Your task to perform on an android device: Go to Google maps Image 0: 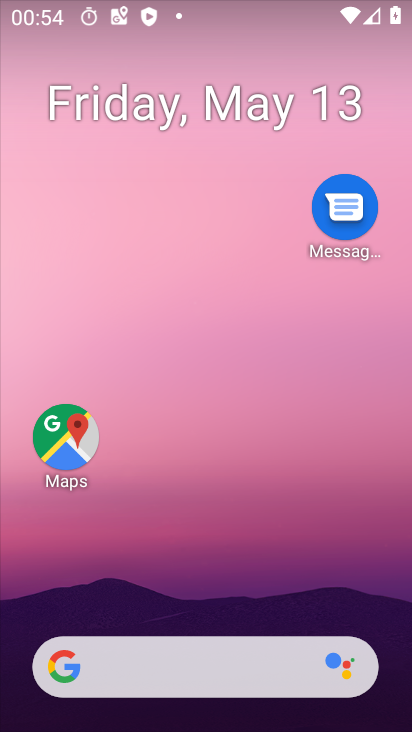
Step 0: press home button
Your task to perform on an android device: Go to Google maps Image 1: 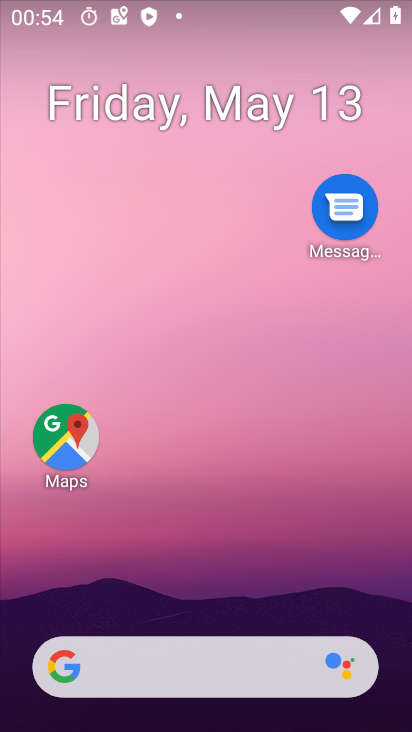
Step 1: drag from (346, 546) to (368, 175)
Your task to perform on an android device: Go to Google maps Image 2: 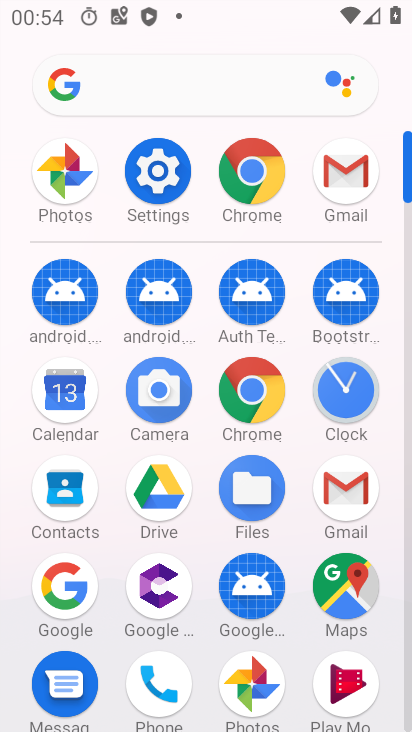
Step 2: click (367, 585)
Your task to perform on an android device: Go to Google maps Image 3: 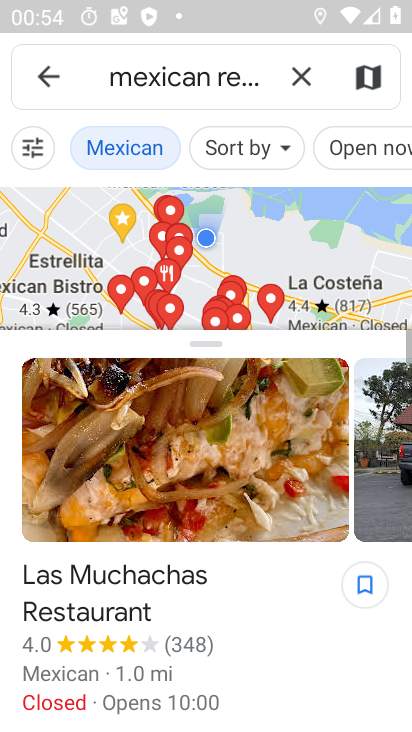
Step 3: task complete